Your task to perform on an android device: open app "Google Docs" (install if not already installed) Image 0: 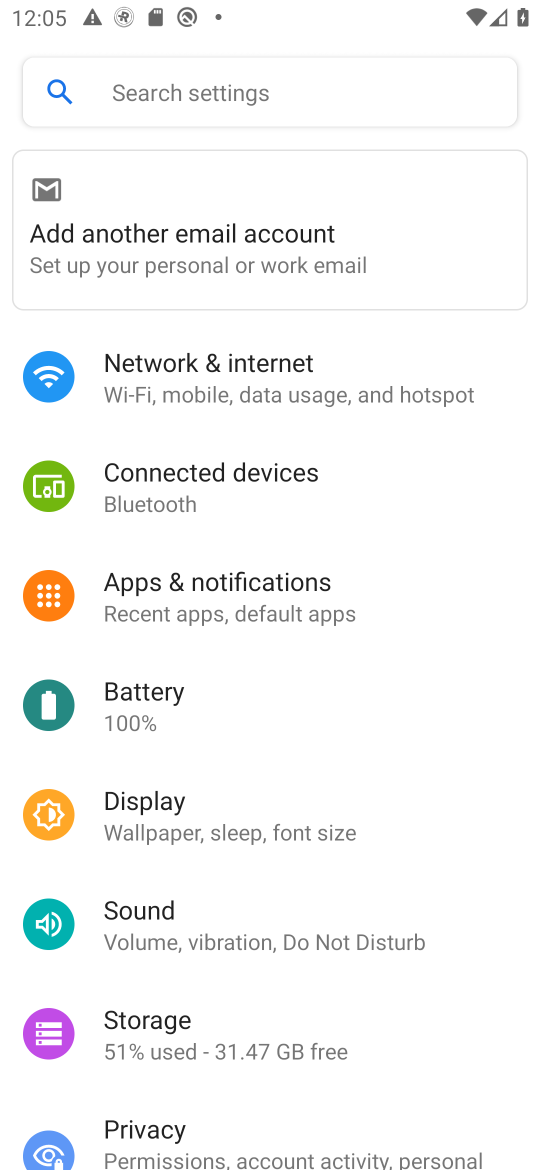
Step 0: press home button
Your task to perform on an android device: open app "Google Docs" (install if not already installed) Image 1: 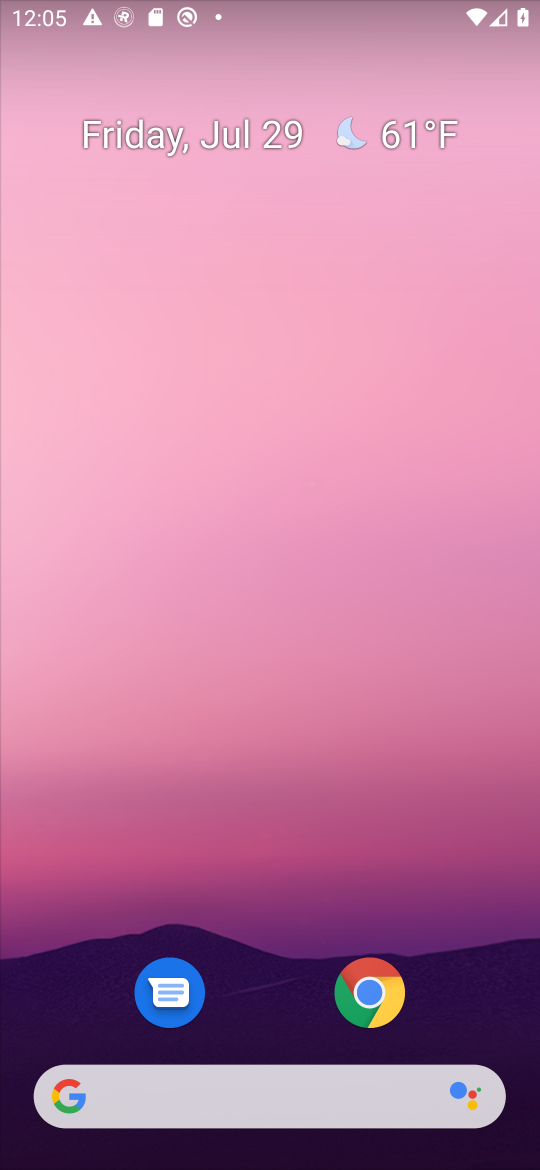
Step 1: drag from (218, 1087) to (269, 94)
Your task to perform on an android device: open app "Google Docs" (install if not already installed) Image 2: 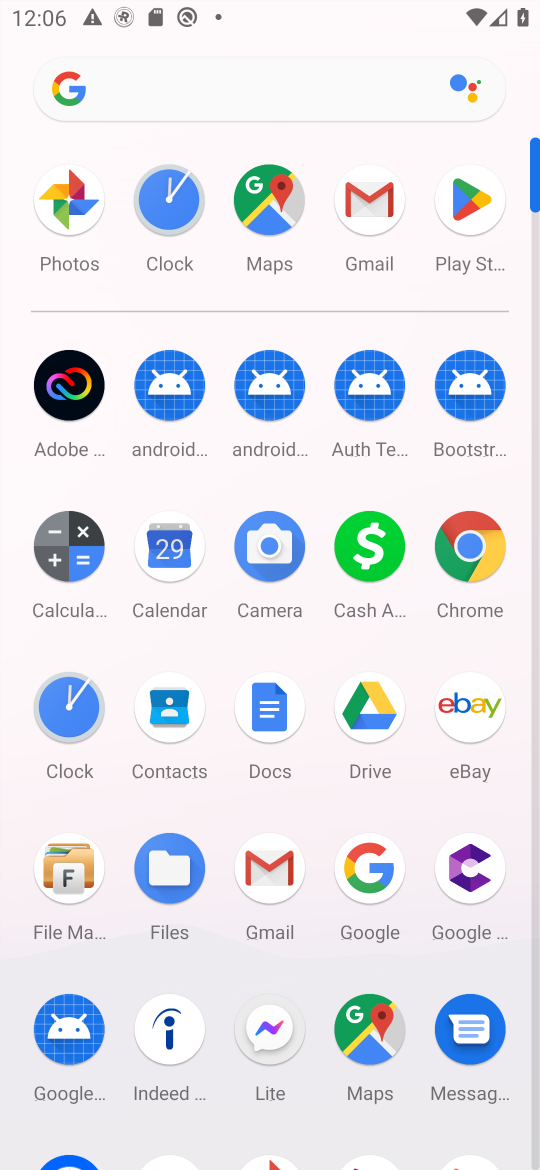
Step 2: click (472, 202)
Your task to perform on an android device: open app "Google Docs" (install if not already installed) Image 3: 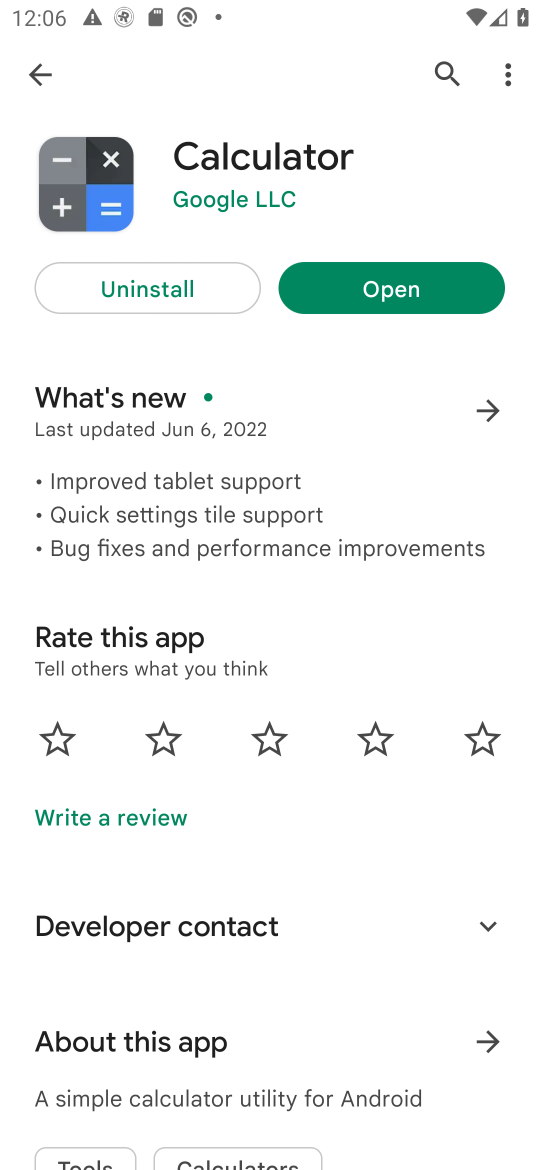
Step 3: click (447, 77)
Your task to perform on an android device: open app "Google Docs" (install if not already installed) Image 4: 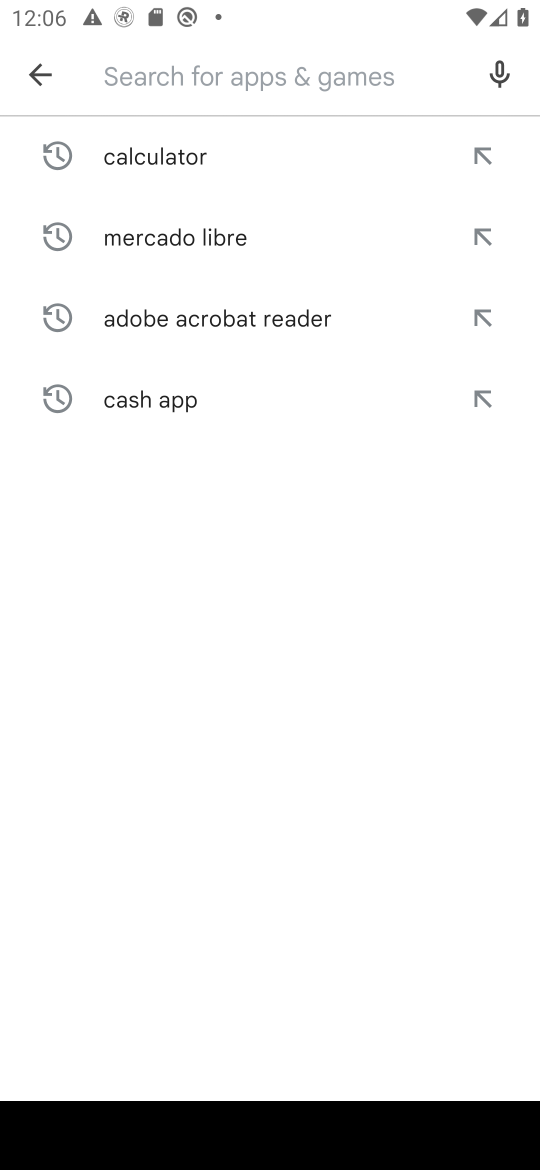
Step 4: type "Google Docs"
Your task to perform on an android device: open app "Google Docs" (install if not already installed) Image 5: 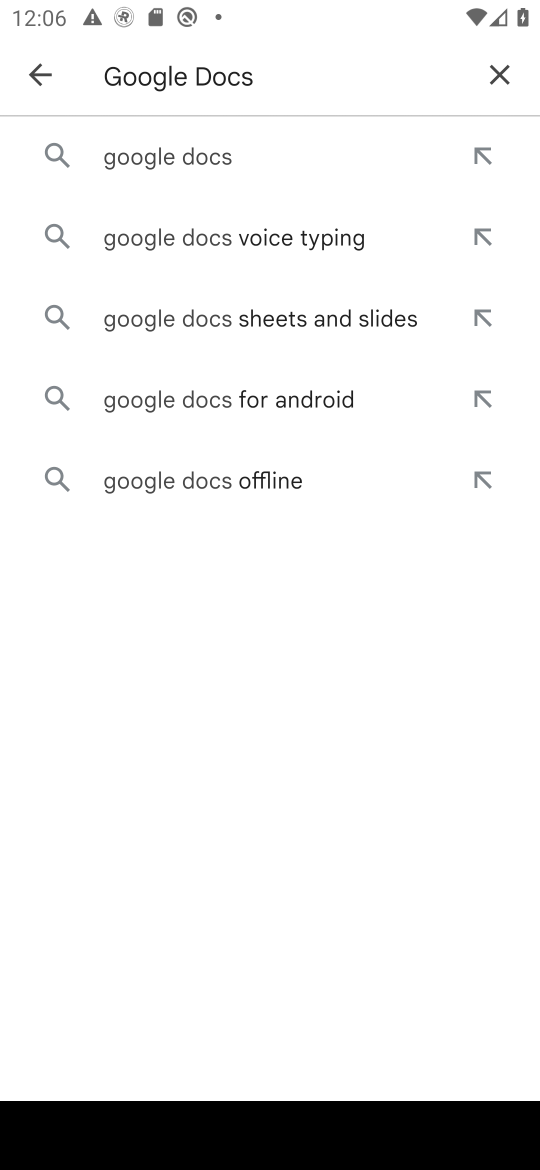
Step 5: click (199, 166)
Your task to perform on an android device: open app "Google Docs" (install if not already installed) Image 6: 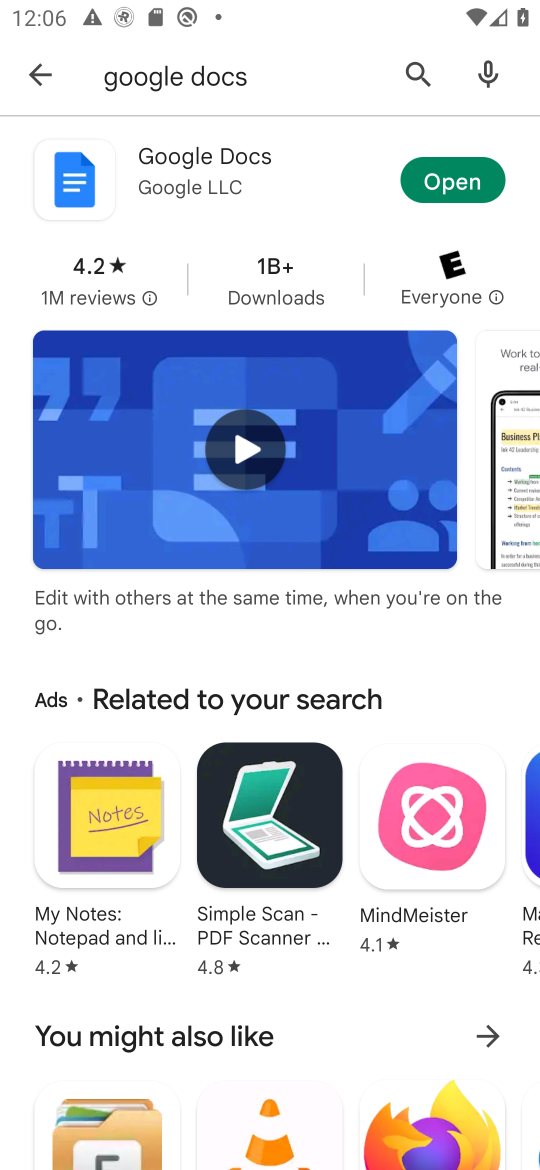
Step 6: click (453, 194)
Your task to perform on an android device: open app "Google Docs" (install if not already installed) Image 7: 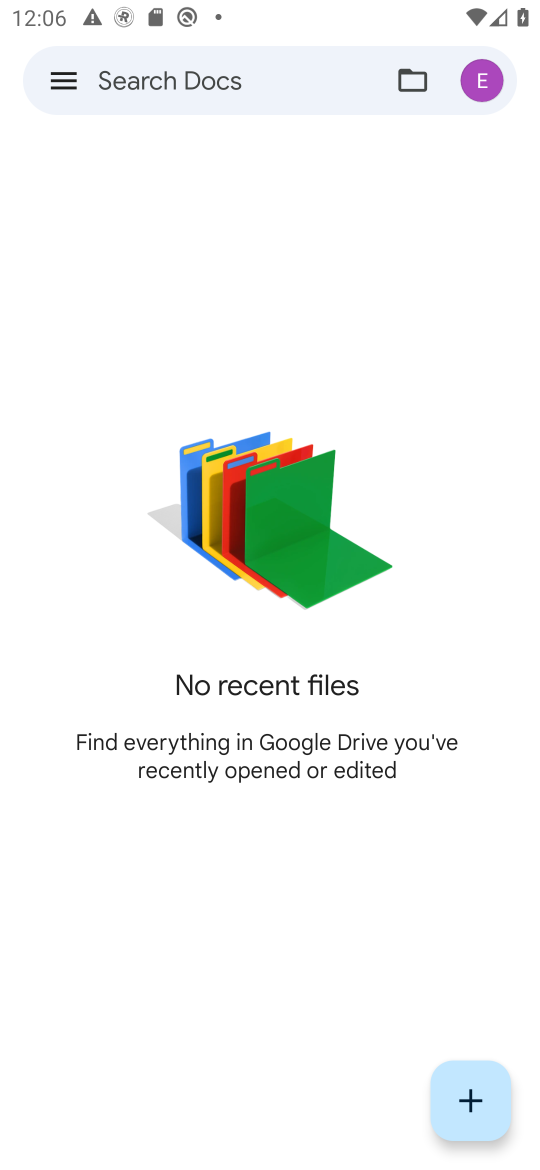
Step 7: task complete